Your task to perform on an android device: set an alarm Image 0: 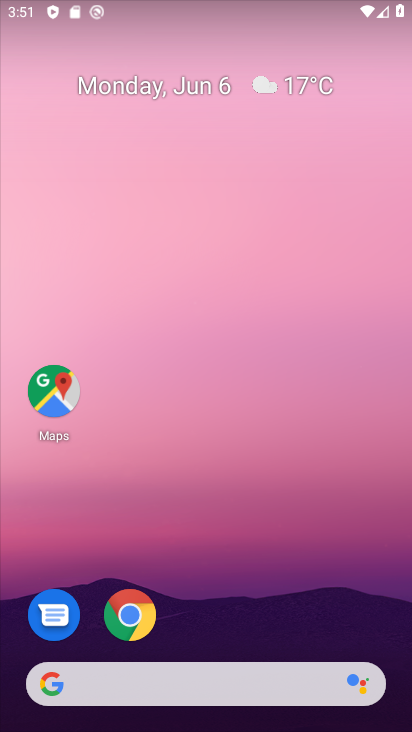
Step 0: drag from (237, 559) to (185, 16)
Your task to perform on an android device: set an alarm Image 1: 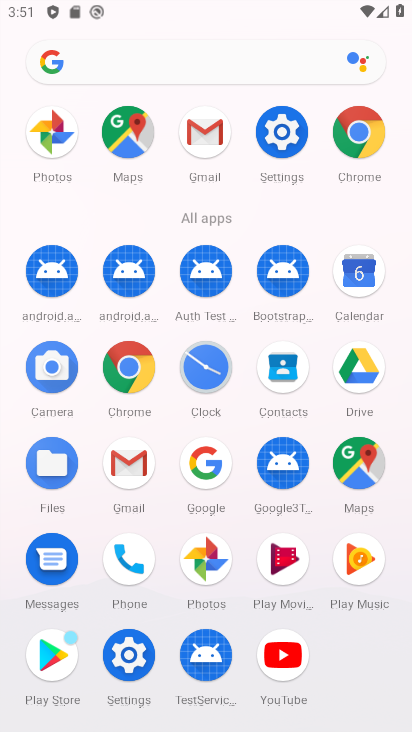
Step 1: drag from (7, 587) to (14, 267)
Your task to perform on an android device: set an alarm Image 2: 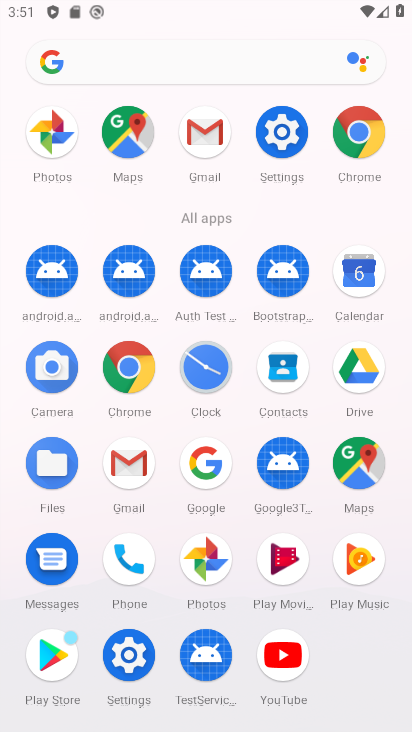
Step 2: click (203, 360)
Your task to perform on an android device: set an alarm Image 3: 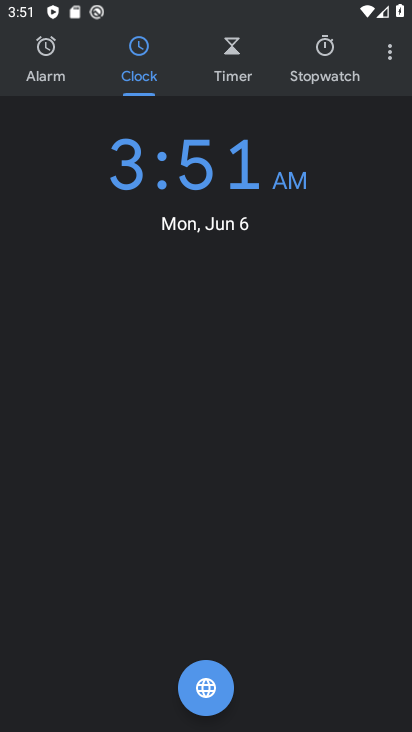
Step 3: click (52, 45)
Your task to perform on an android device: set an alarm Image 4: 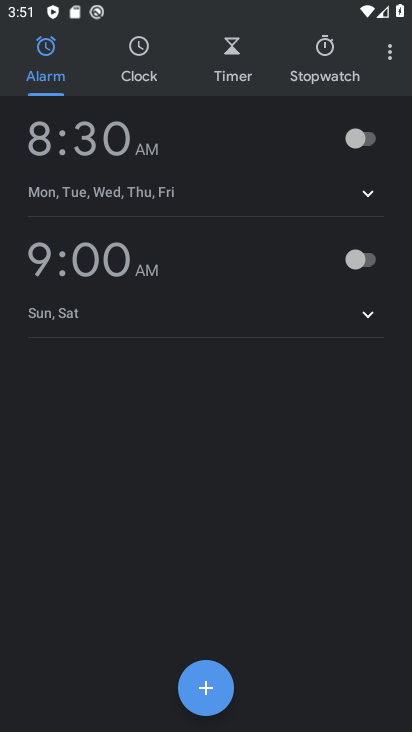
Step 4: click (207, 686)
Your task to perform on an android device: set an alarm Image 5: 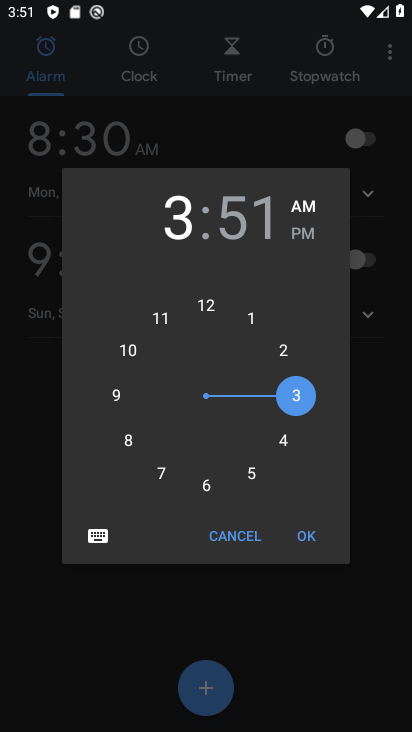
Step 5: click (306, 532)
Your task to perform on an android device: set an alarm Image 6: 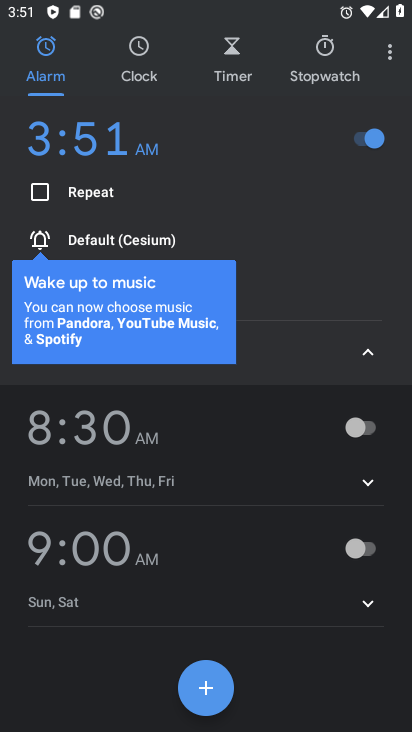
Step 6: task complete